Your task to perform on an android device: Open Google Maps Image 0: 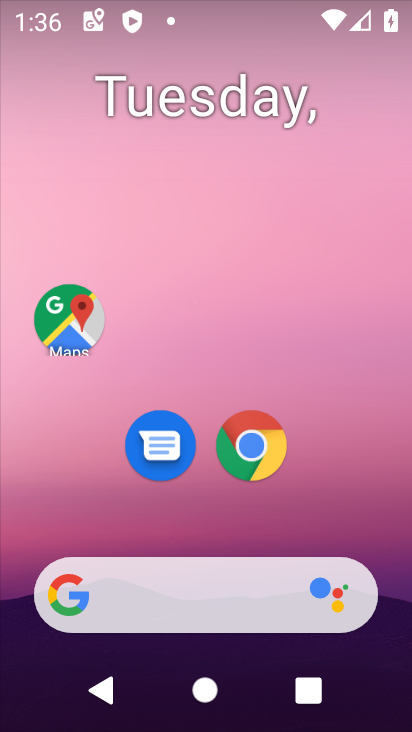
Step 0: drag from (353, 496) to (299, 0)
Your task to perform on an android device: Open Google Maps Image 1: 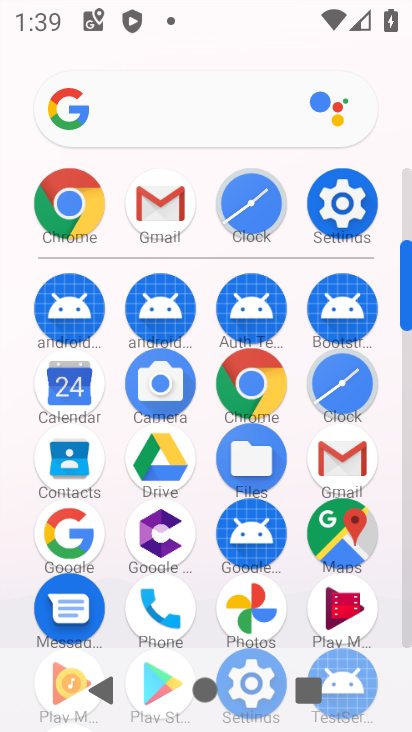
Step 1: click (363, 543)
Your task to perform on an android device: Open Google Maps Image 2: 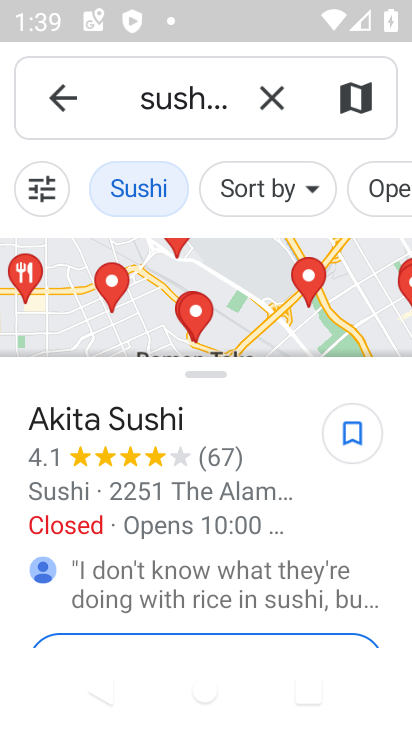
Step 2: task complete